Your task to perform on an android device: Play the last video I watched on Youtube Image 0: 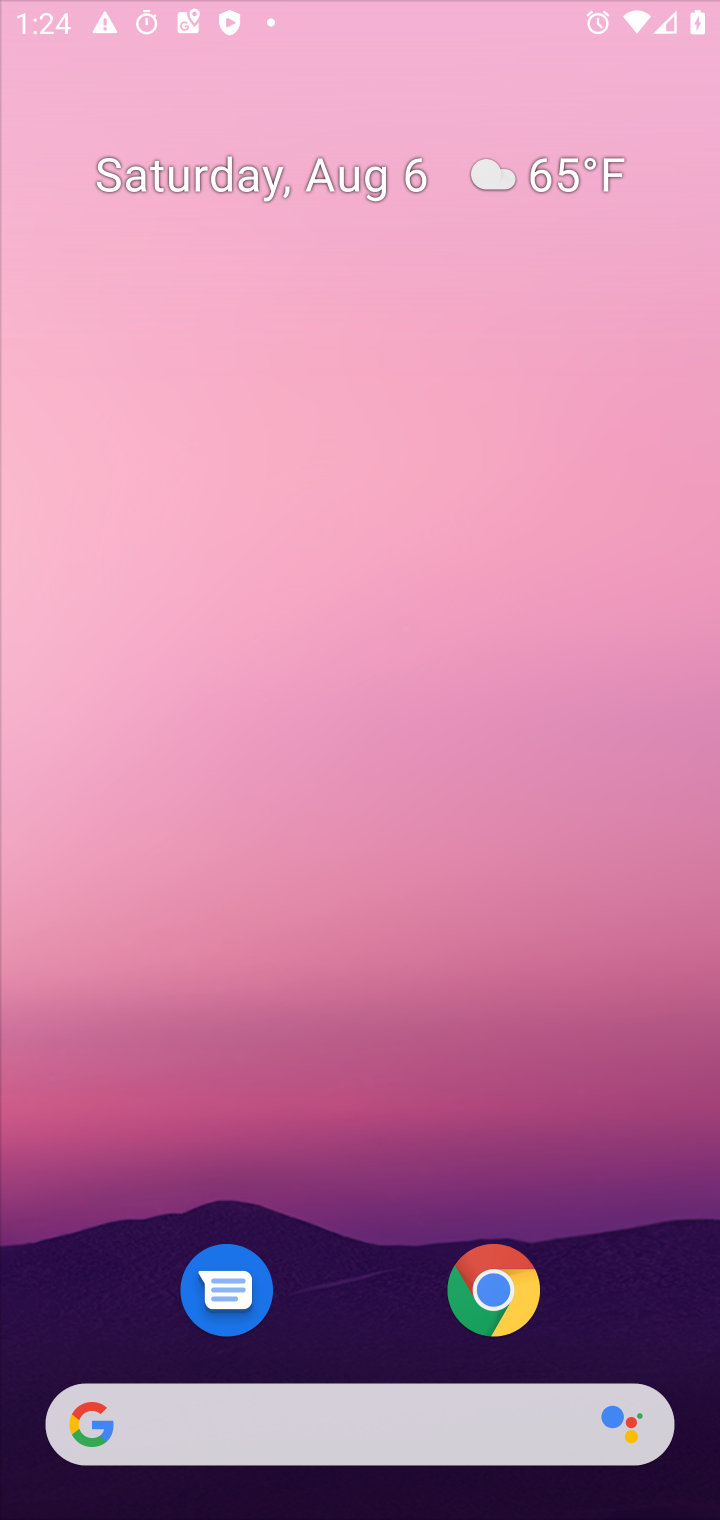
Step 0: press home button
Your task to perform on an android device: Play the last video I watched on Youtube Image 1: 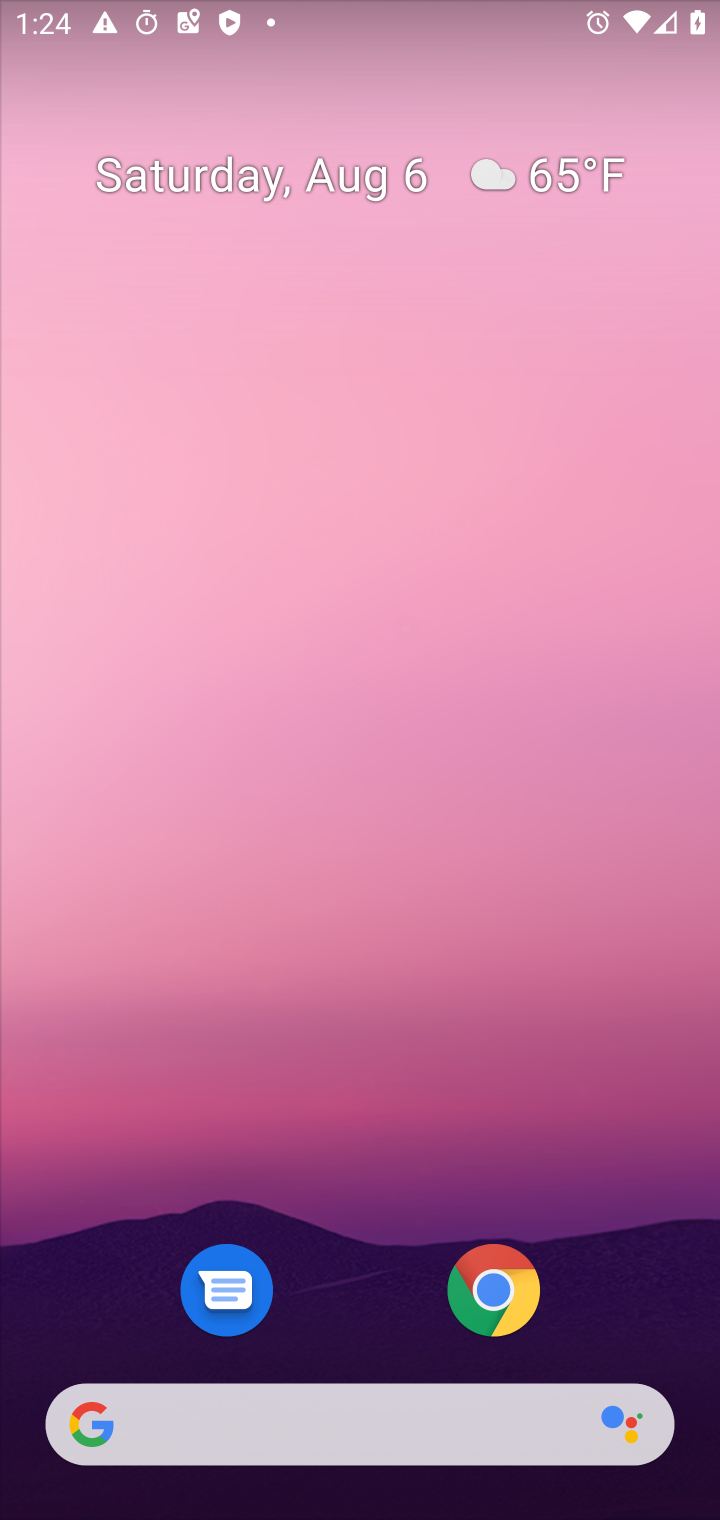
Step 1: drag from (353, 1356) to (548, 60)
Your task to perform on an android device: Play the last video I watched on Youtube Image 2: 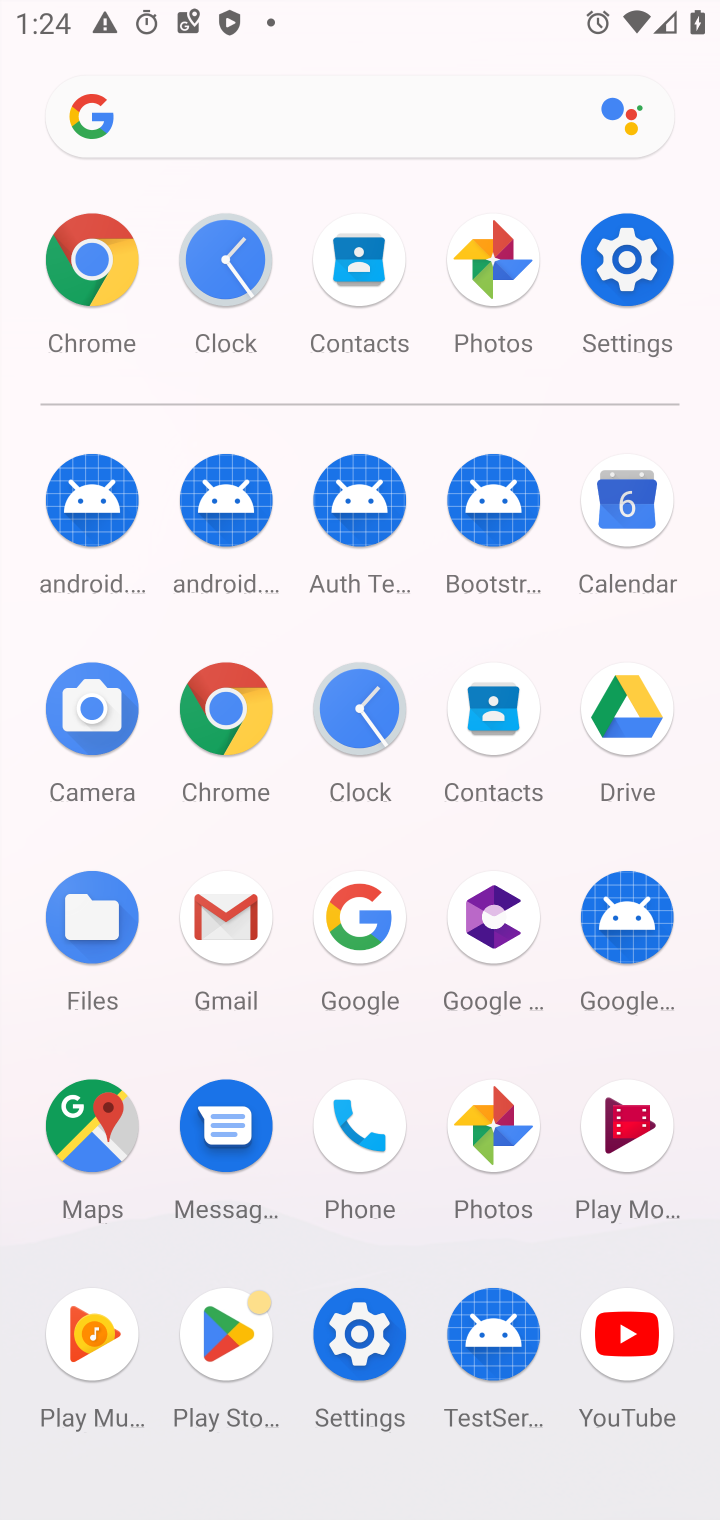
Step 2: click (613, 1323)
Your task to perform on an android device: Play the last video I watched on Youtube Image 3: 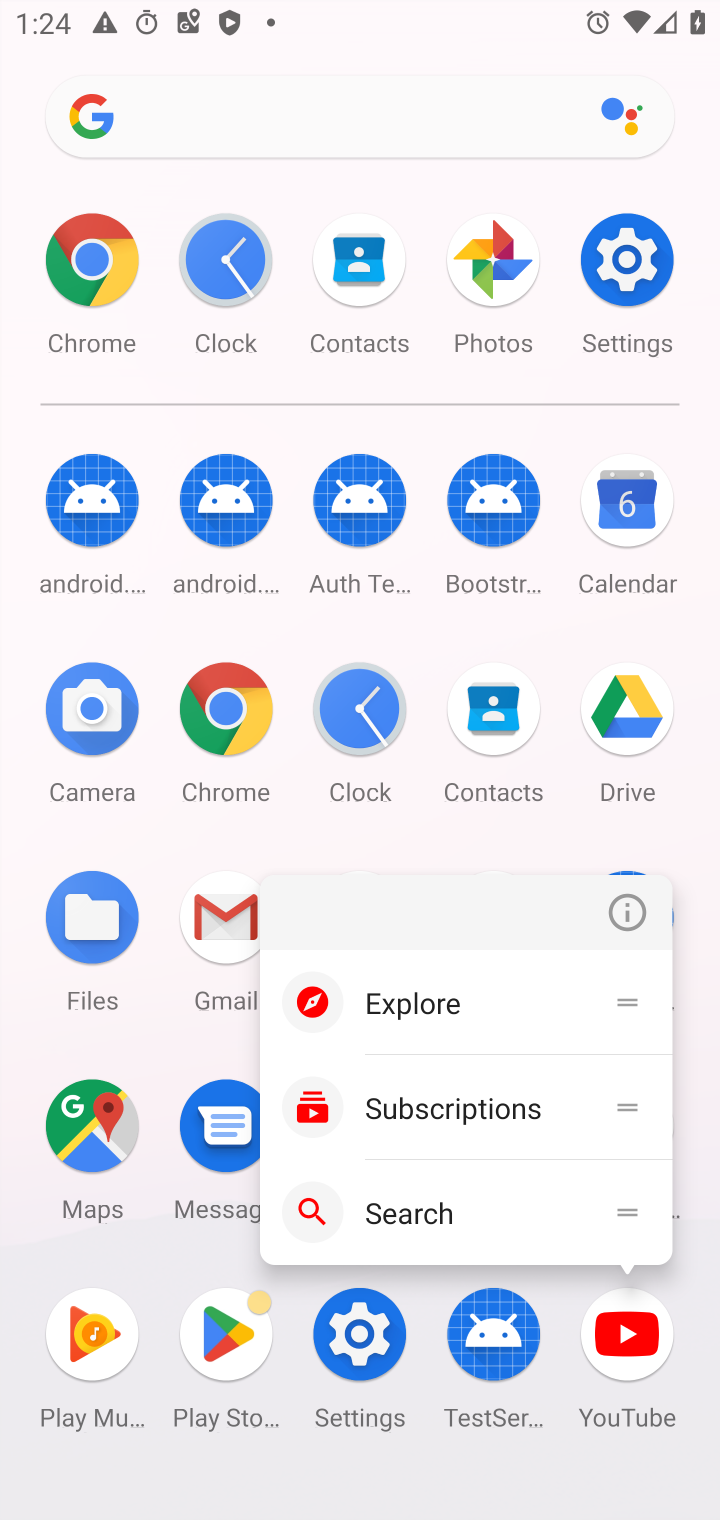
Step 3: click (621, 1315)
Your task to perform on an android device: Play the last video I watched on Youtube Image 4: 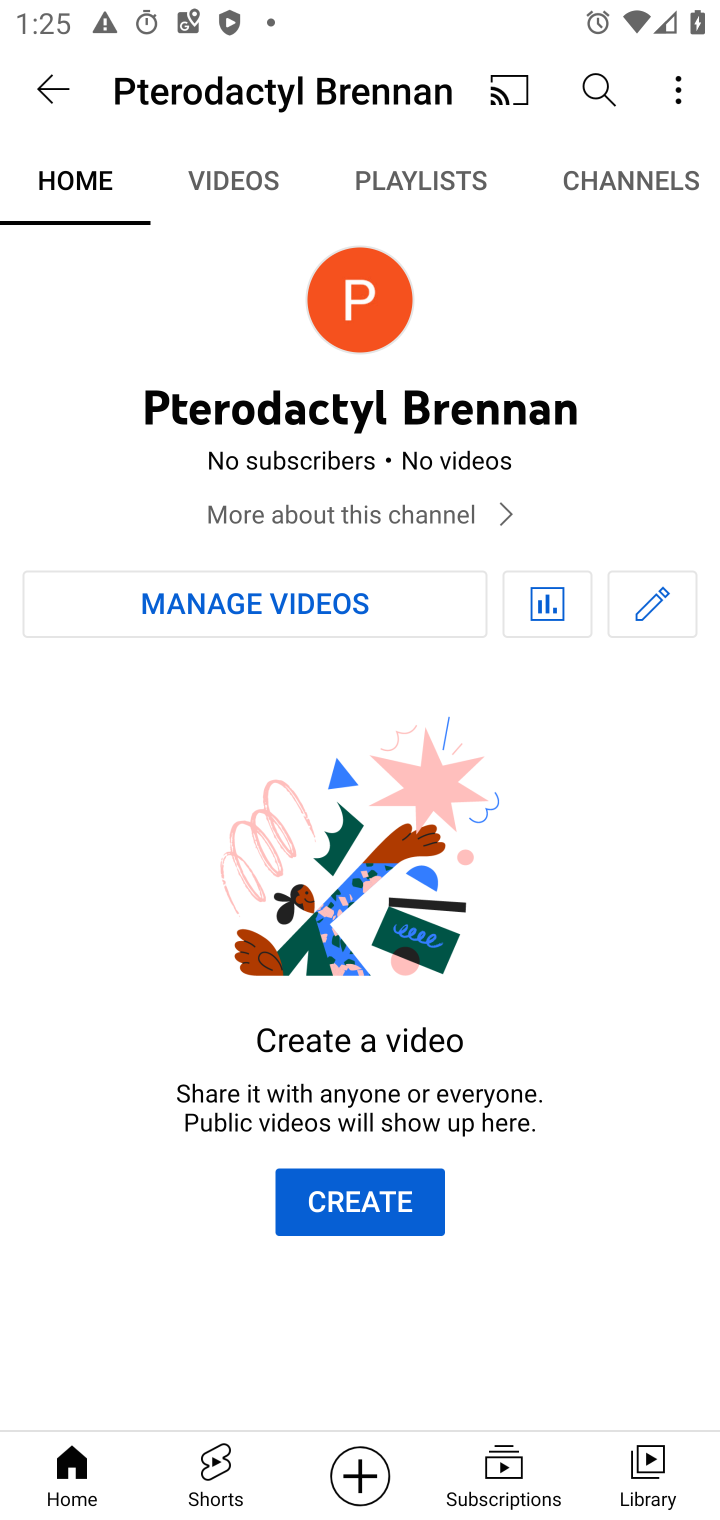
Step 4: click (645, 1474)
Your task to perform on an android device: Play the last video I watched on Youtube Image 5: 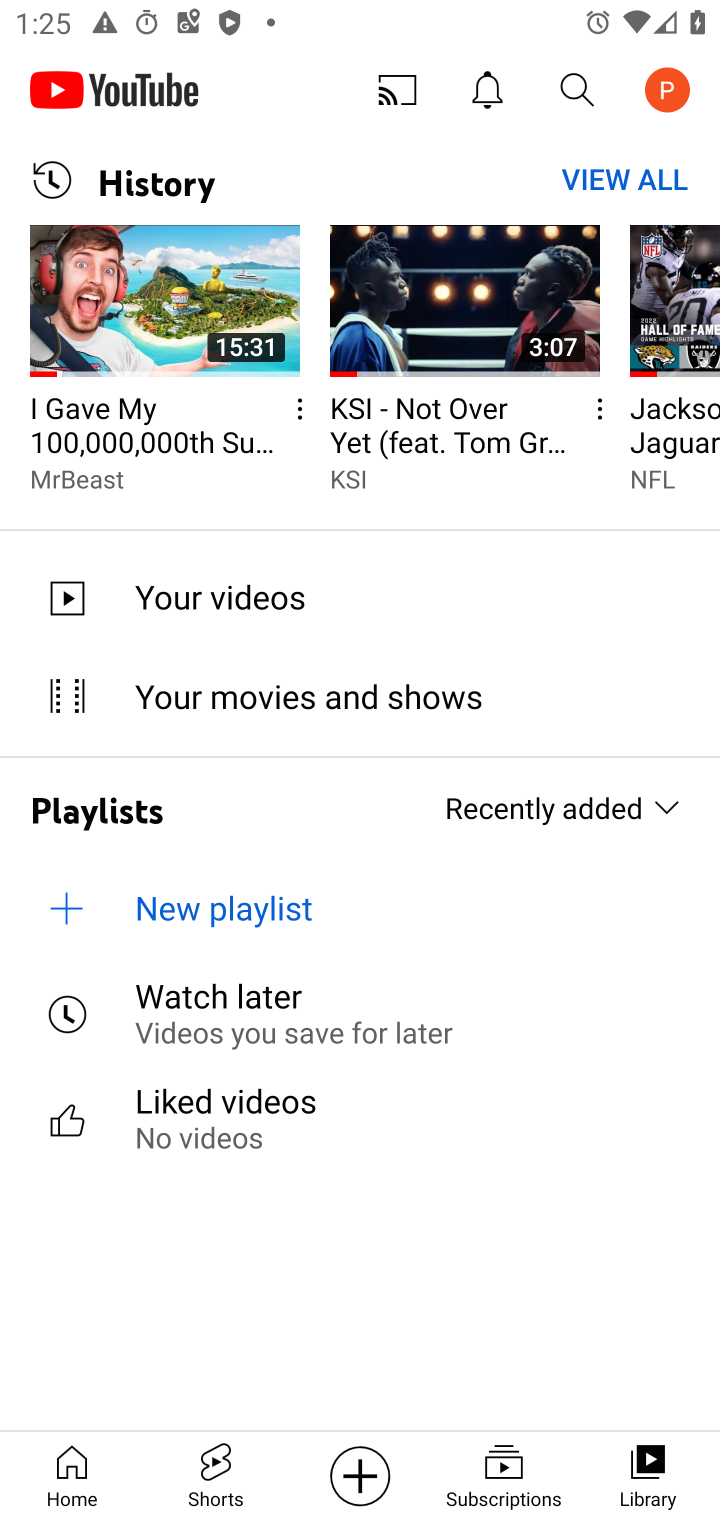
Step 5: click (218, 300)
Your task to perform on an android device: Play the last video I watched on Youtube Image 6: 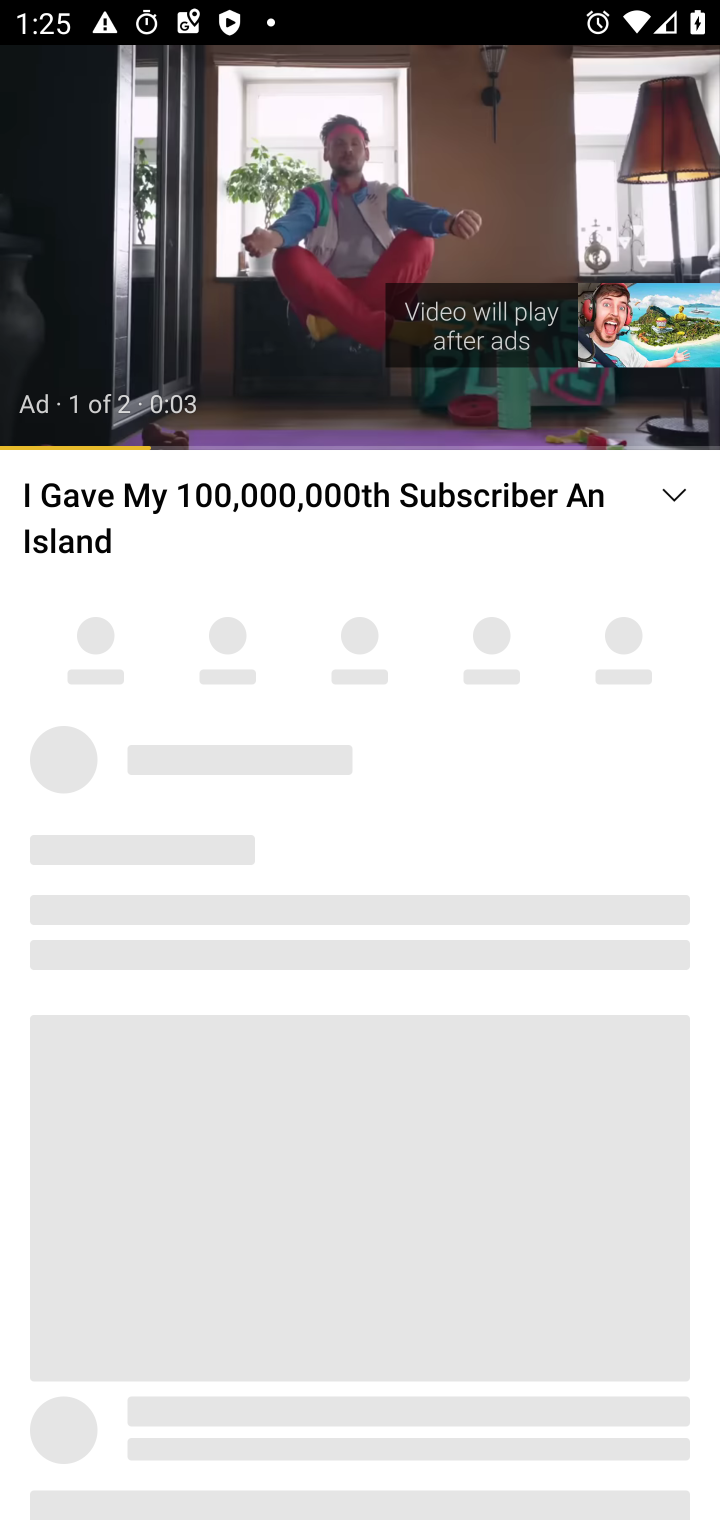
Step 6: task complete